Your task to perform on an android device: What is the news today? Image 0: 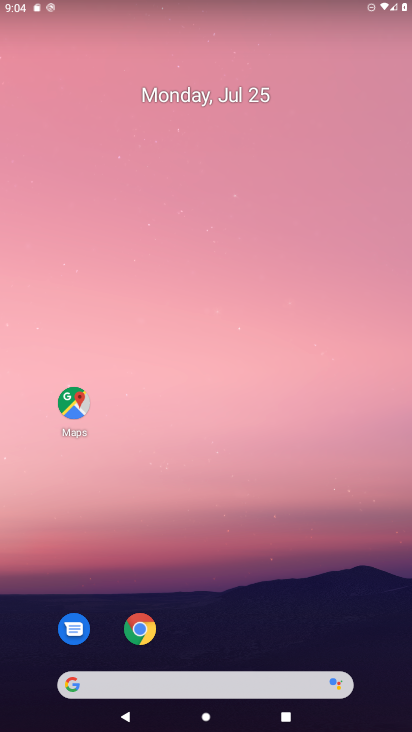
Step 0: click (181, 678)
Your task to perform on an android device: What is the news today? Image 1: 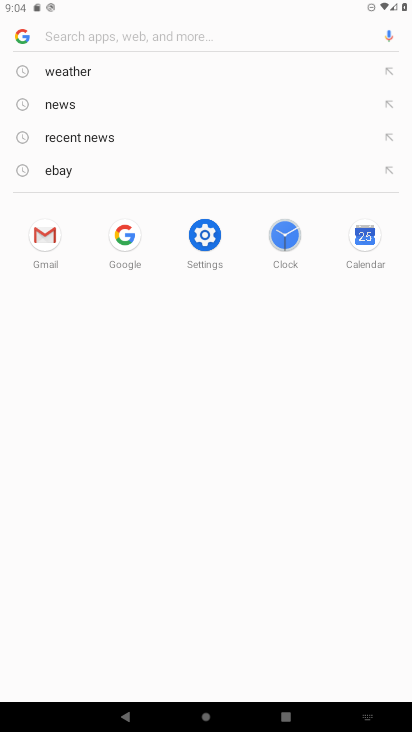
Step 1: click (56, 98)
Your task to perform on an android device: What is the news today? Image 2: 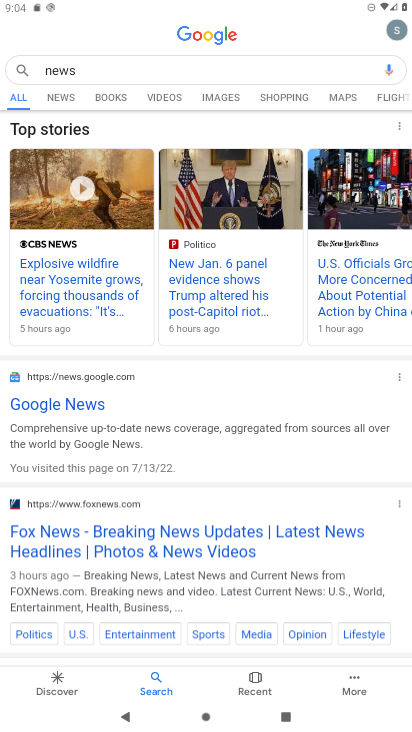
Step 2: click (76, 237)
Your task to perform on an android device: What is the news today? Image 3: 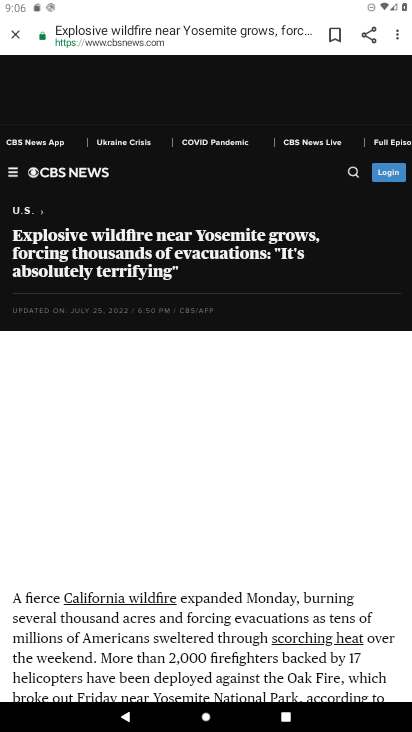
Step 3: task complete